Your task to perform on an android device: turn off improve location accuracy Image 0: 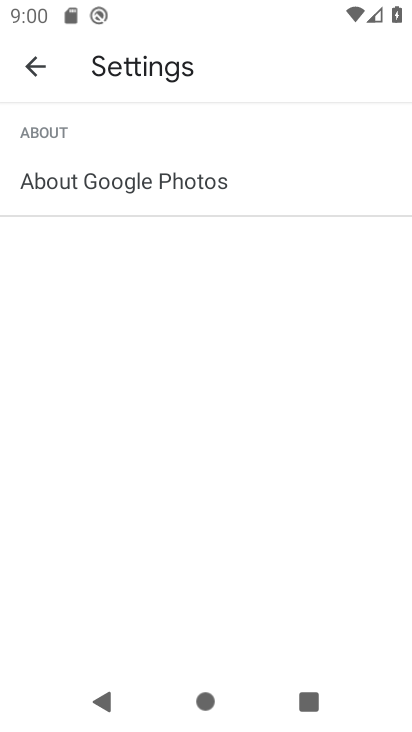
Step 0: press home button
Your task to perform on an android device: turn off improve location accuracy Image 1: 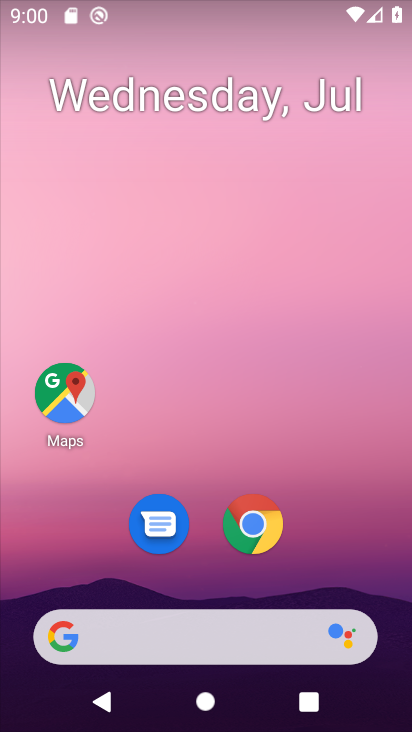
Step 1: drag from (324, 543) to (345, 75)
Your task to perform on an android device: turn off improve location accuracy Image 2: 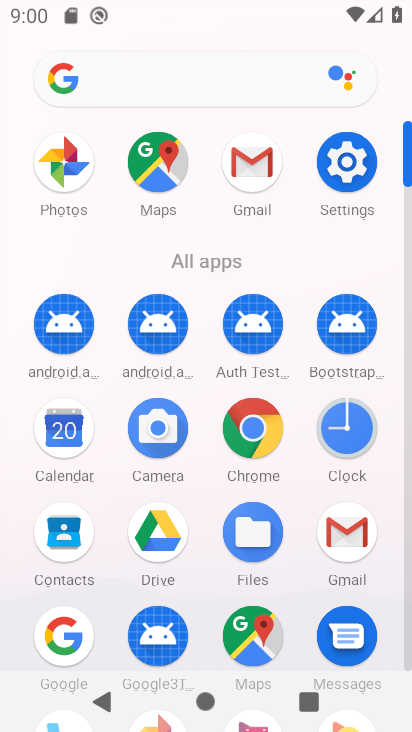
Step 2: click (348, 166)
Your task to perform on an android device: turn off improve location accuracy Image 3: 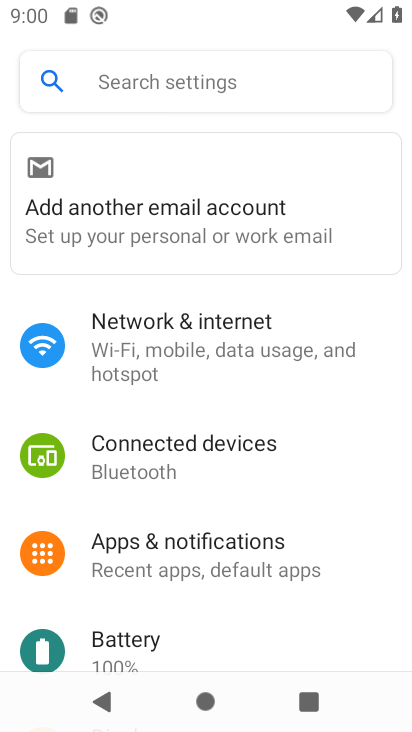
Step 3: drag from (220, 496) to (244, 123)
Your task to perform on an android device: turn off improve location accuracy Image 4: 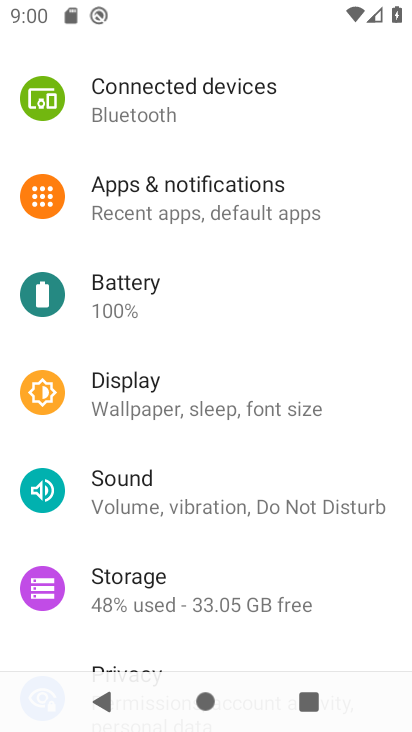
Step 4: drag from (230, 451) to (217, 125)
Your task to perform on an android device: turn off improve location accuracy Image 5: 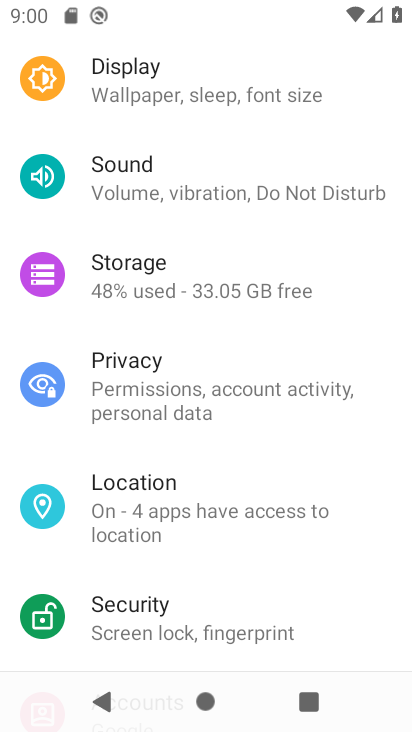
Step 5: click (196, 505)
Your task to perform on an android device: turn off improve location accuracy Image 6: 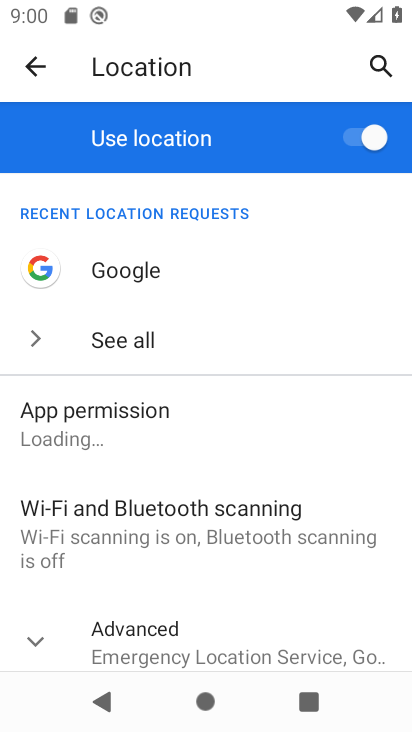
Step 6: drag from (237, 457) to (233, 166)
Your task to perform on an android device: turn off improve location accuracy Image 7: 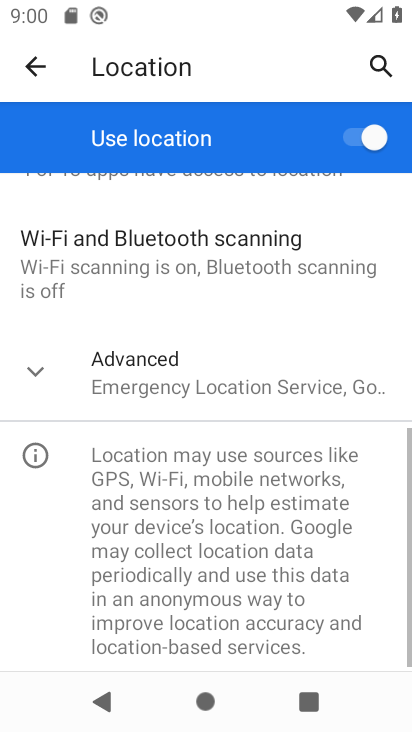
Step 7: click (41, 361)
Your task to perform on an android device: turn off improve location accuracy Image 8: 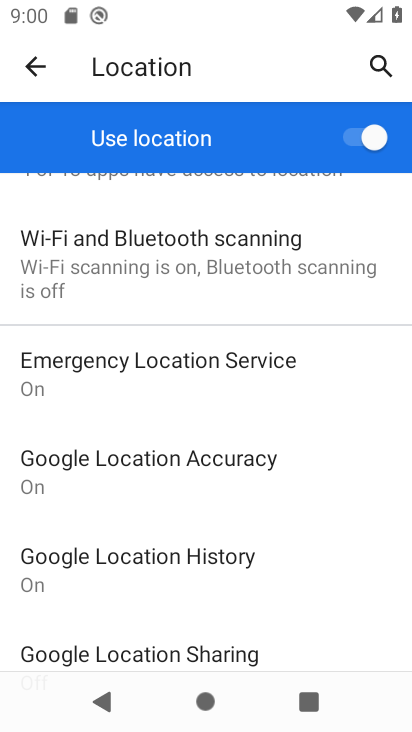
Step 8: click (216, 470)
Your task to perform on an android device: turn off improve location accuracy Image 9: 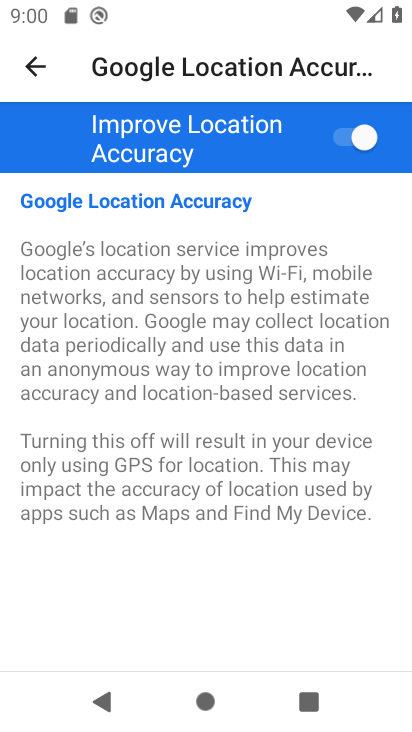
Step 9: click (349, 135)
Your task to perform on an android device: turn off improve location accuracy Image 10: 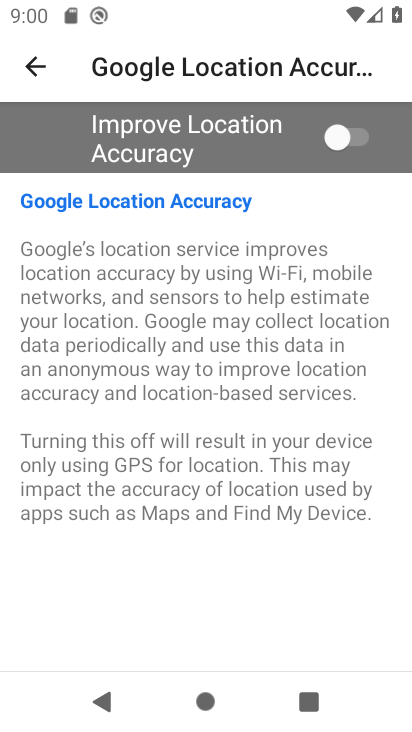
Step 10: task complete